Your task to perform on an android device: turn on bluetooth scan Image 0: 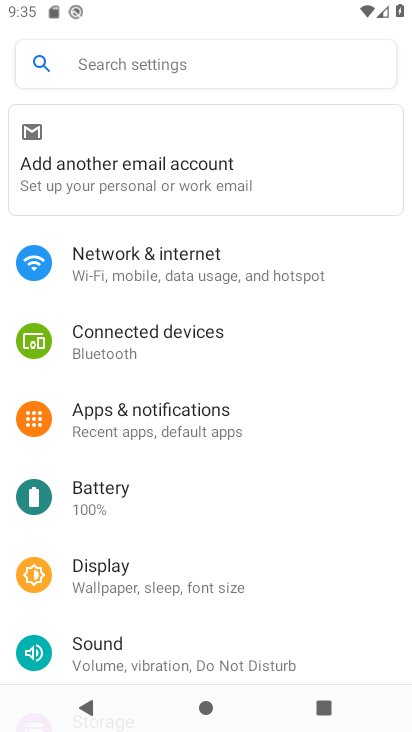
Step 0: drag from (208, 576) to (226, 534)
Your task to perform on an android device: turn on bluetooth scan Image 1: 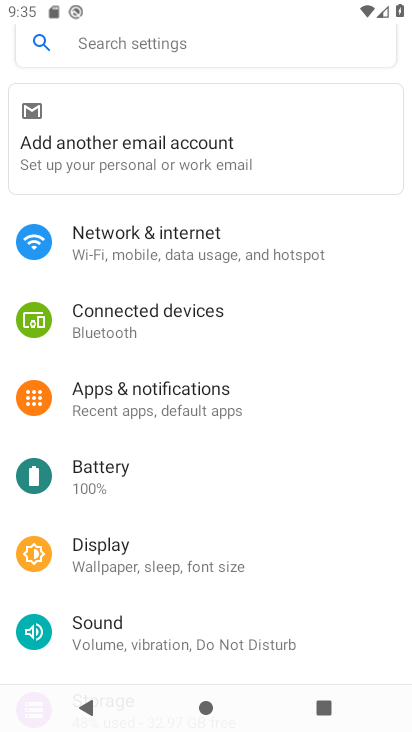
Step 1: drag from (208, 636) to (207, 515)
Your task to perform on an android device: turn on bluetooth scan Image 2: 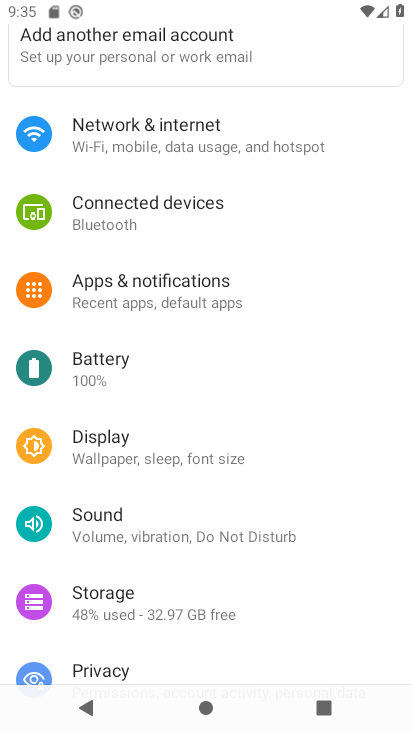
Step 2: drag from (177, 636) to (181, 536)
Your task to perform on an android device: turn on bluetooth scan Image 3: 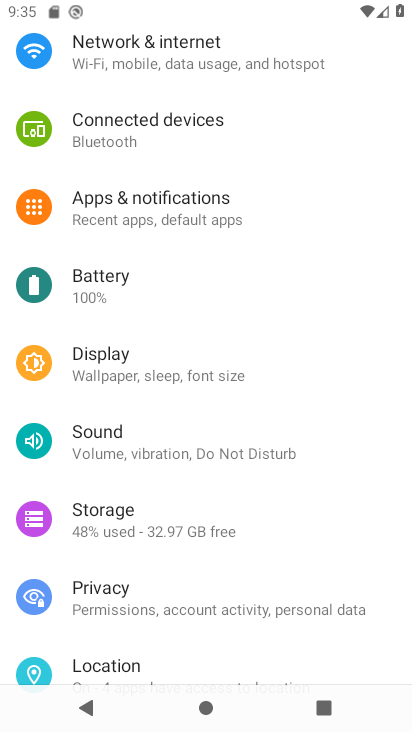
Step 3: drag from (183, 645) to (196, 539)
Your task to perform on an android device: turn on bluetooth scan Image 4: 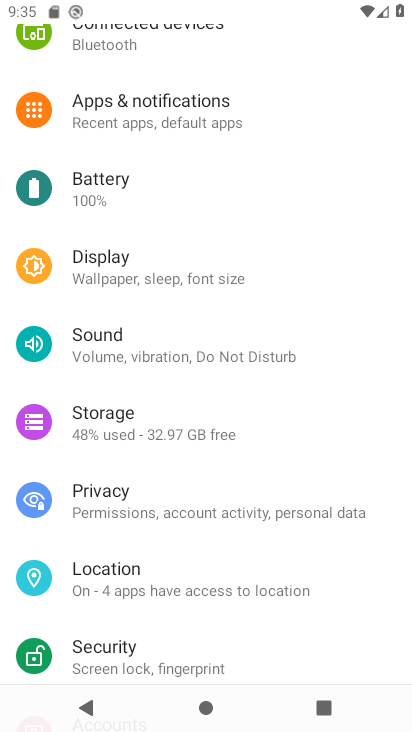
Step 4: click (175, 588)
Your task to perform on an android device: turn on bluetooth scan Image 5: 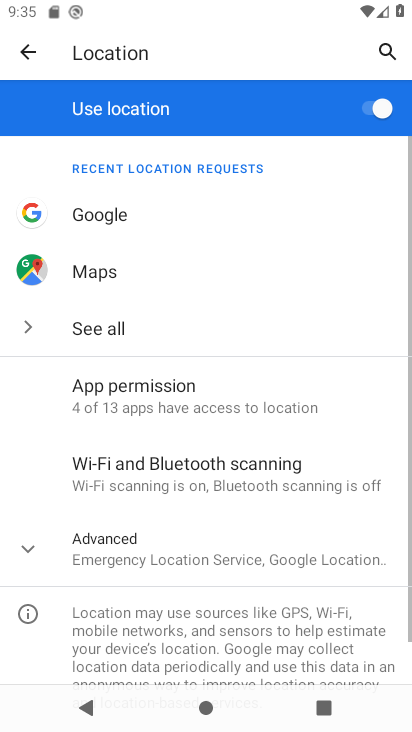
Step 5: click (202, 474)
Your task to perform on an android device: turn on bluetooth scan Image 6: 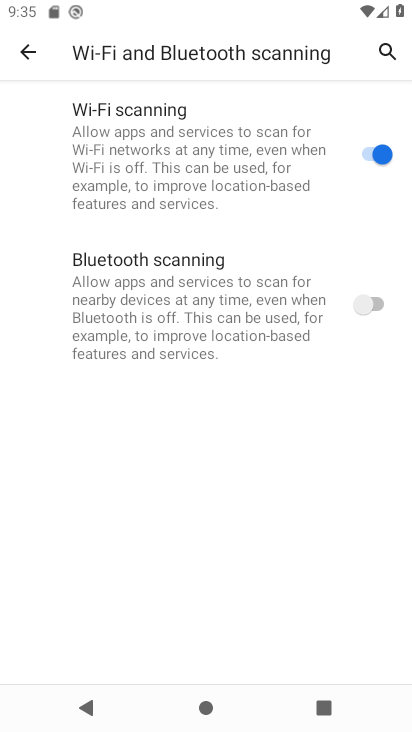
Step 6: click (365, 297)
Your task to perform on an android device: turn on bluetooth scan Image 7: 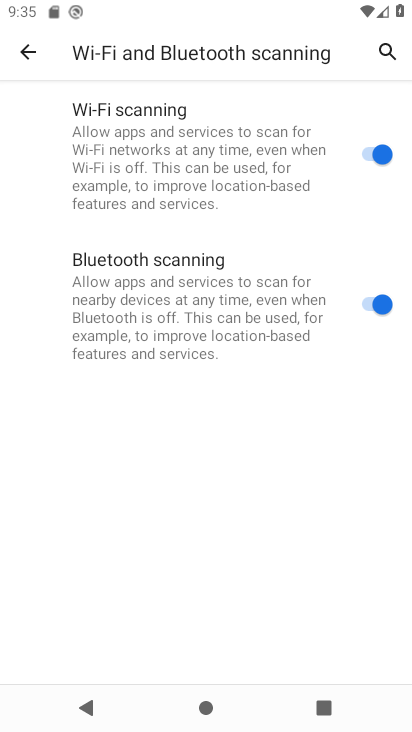
Step 7: task complete